Your task to perform on an android device: change notification settings in the gmail app Image 0: 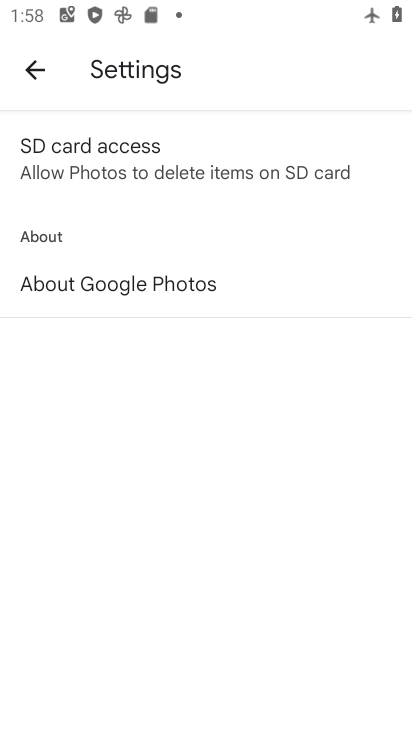
Step 0: press home button
Your task to perform on an android device: change notification settings in the gmail app Image 1: 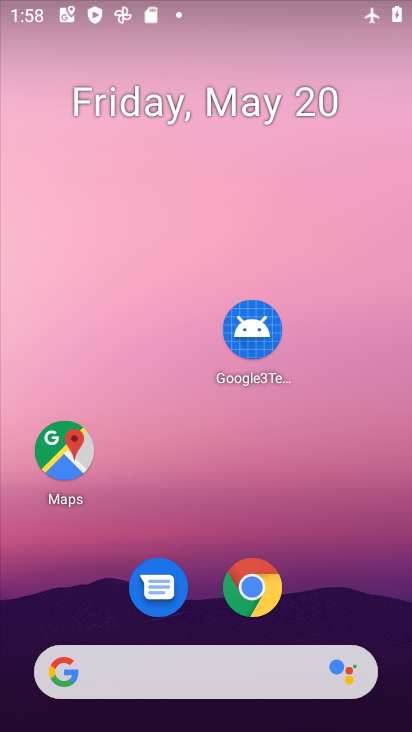
Step 1: drag from (321, 579) to (259, 131)
Your task to perform on an android device: change notification settings in the gmail app Image 2: 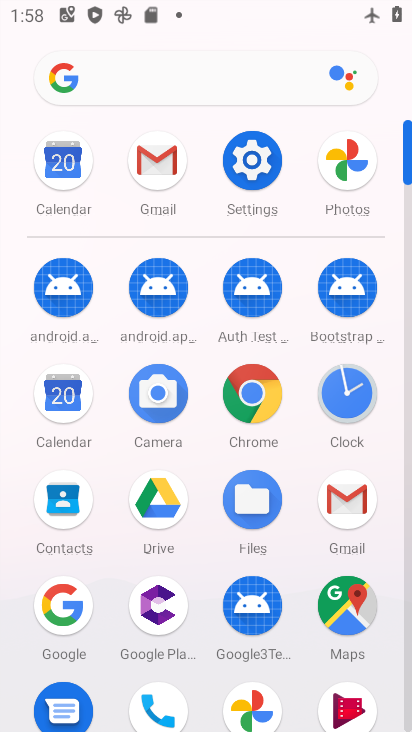
Step 2: click (159, 166)
Your task to perform on an android device: change notification settings in the gmail app Image 3: 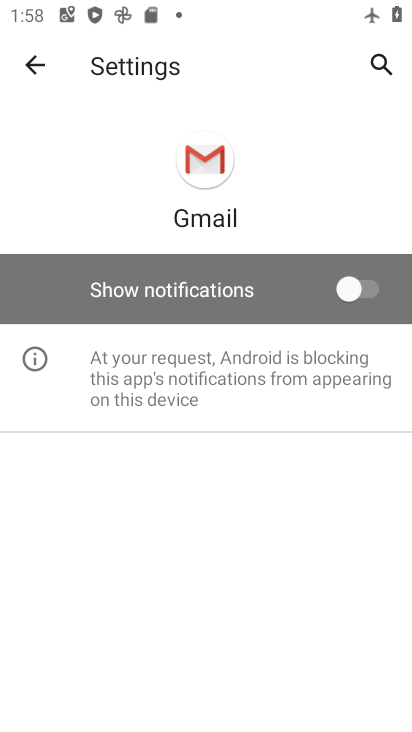
Step 3: click (350, 300)
Your task to perform on an android device: change notification settings in the gmail app Image 4: 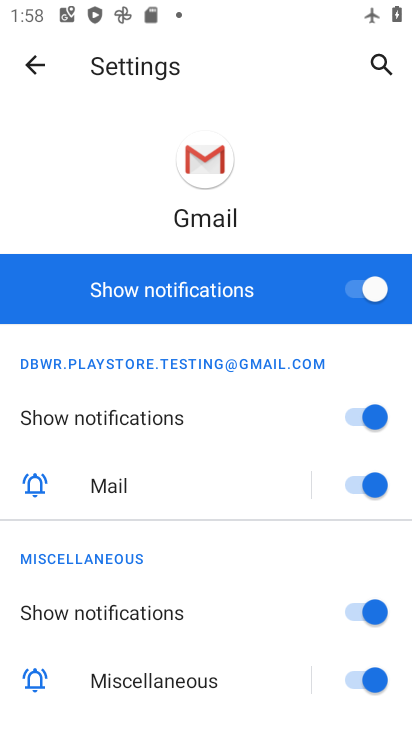
Step 4: task complete